Your task to perform on an android device: Go to display settings Image 0: 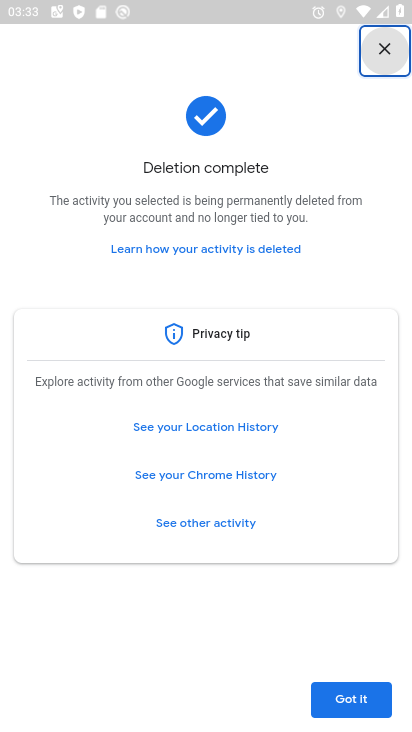
Step 0: press home button
Your task to perform on an android device: Go to display settings Image 1: 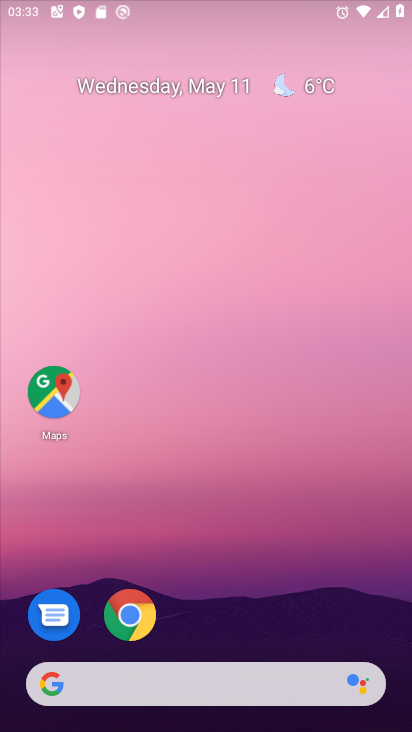
Step 1: drag from (254, 536) to (264, 10)
Your task to perform on an android device: Go to display settings Image 2: 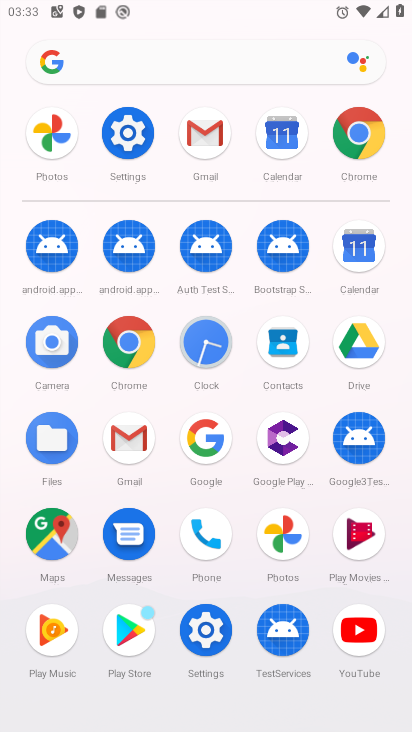
Step 2: click (137, 112)
Your task to perform on an android device: Go to display settings Image 3: 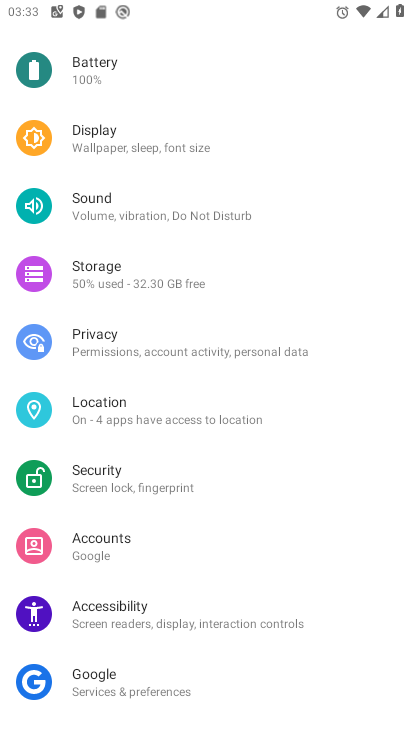
Step 3: click (175, 129)
Your task to perform on an android device: Go to display settings Image 4: 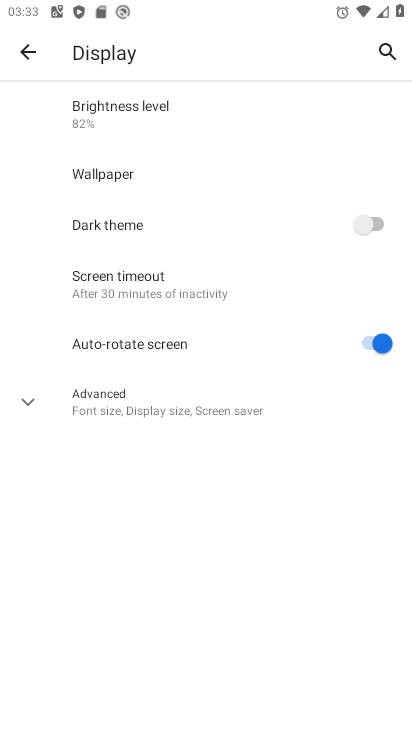
Step 4: task complete